Your task to perform on an android device: Go to privacy settings Image 0: 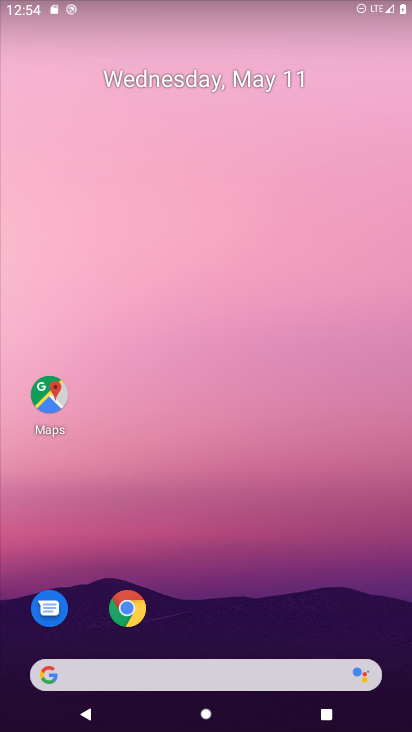
Step 0: drag from (235, 534) to (230, 45)
Your task to perform on an android device: Go to privacy settings Image 1: 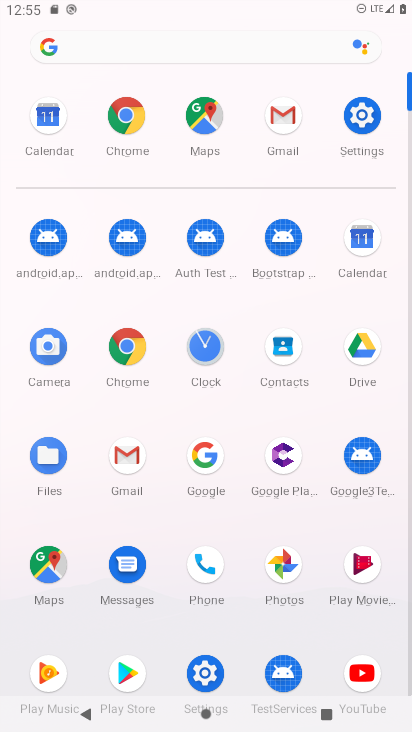
Step 1: click (361, 117)
Your task to perform on an android device: Go to privacy settings Image 2: 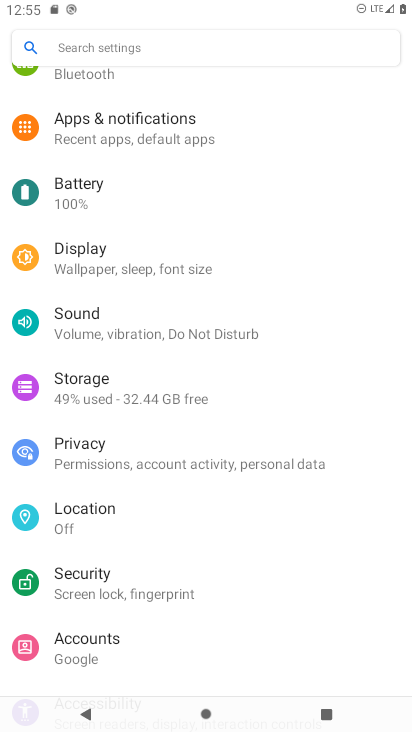
Step 2: click (126, 455)
Your task to perform on an android device: Go to privacy settings Image 3: 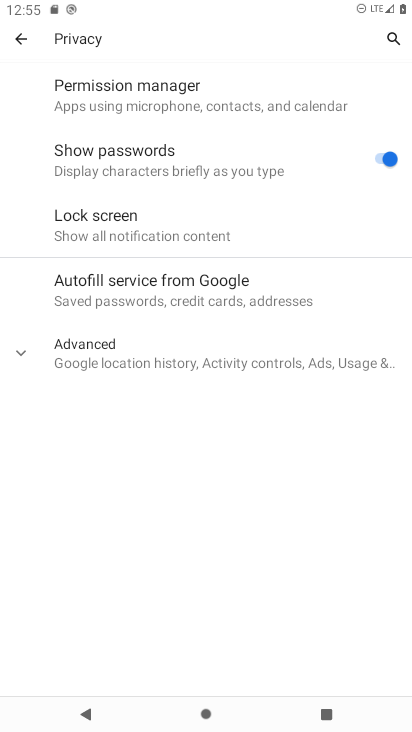
Step 3: task complete